Your task to perform on an android device: Open Amazon Image 0: 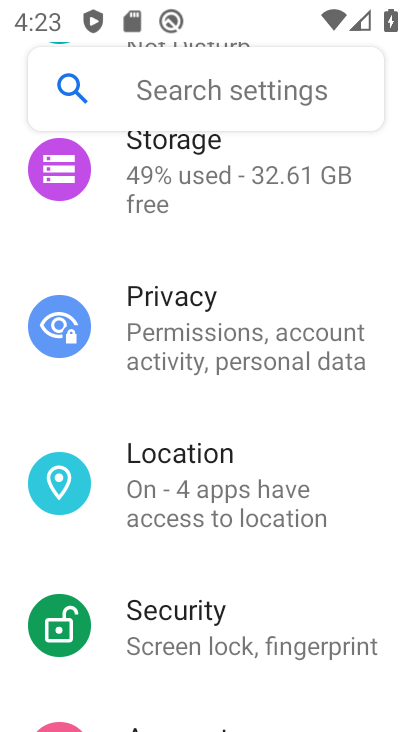
Step 0: press home button
Your task to perform on an android device: Open Amazon Image 1: 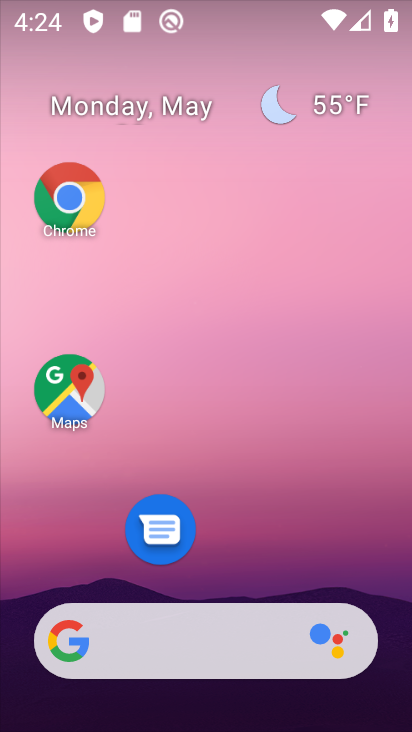
Step 1: click (79, 212)
Your task to perform on an android device: Open Amazon Image 2: 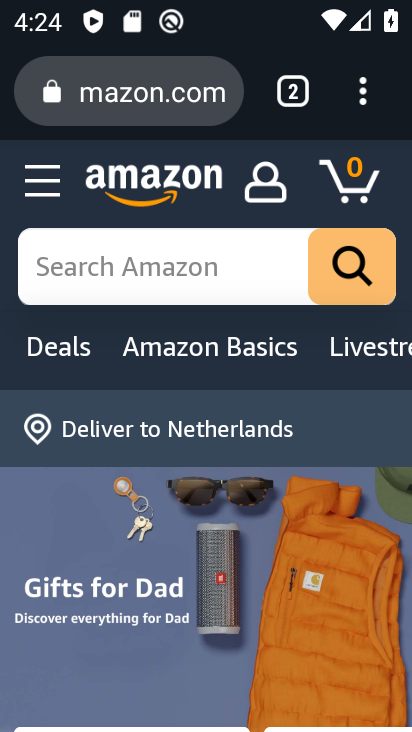
Step 2: task complete